Your task to perform on an android device: Open Chrome and go to settings Image 0: 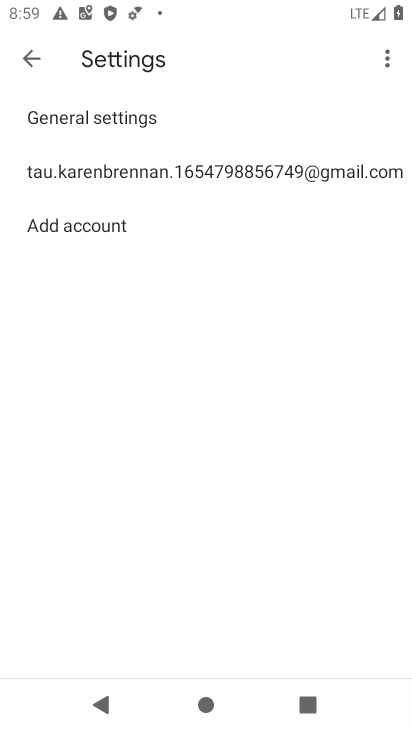
Step 0: press home button
Your task to perform on an android device: Open Chrome and go to settings Image 1: 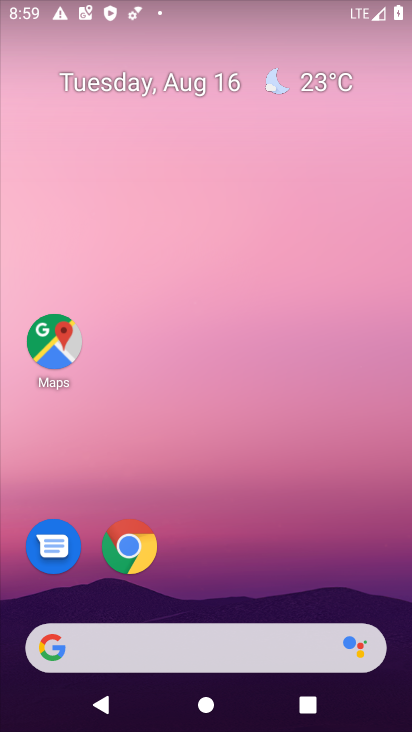
Step 1: click (130, 542)
Your task to perform on an android device: Open Chrome and go to settings Image 2: 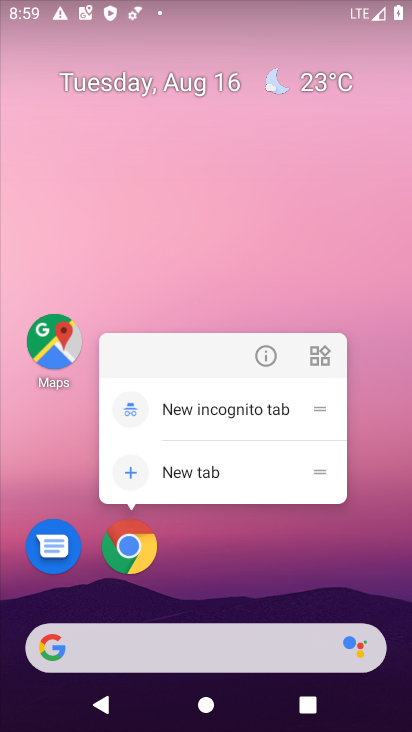
Step 2: click (130, 542)
Your task to perform on an android device: Open Chrome and go to settings Image 3: 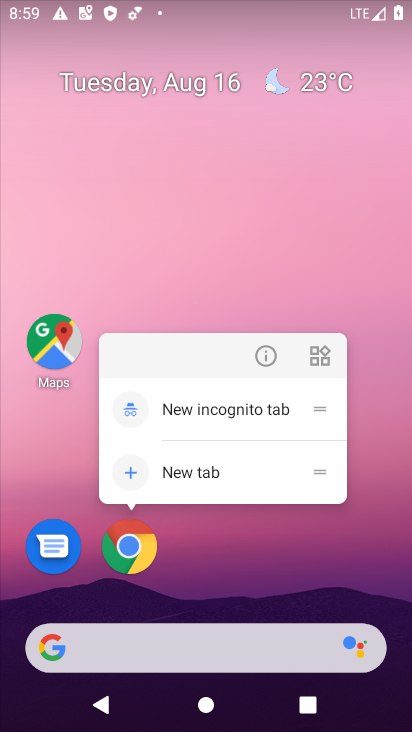
Step 3: click (130, 542)
Your task to perform on an android device: Open Chrome and go to settings Image 4: 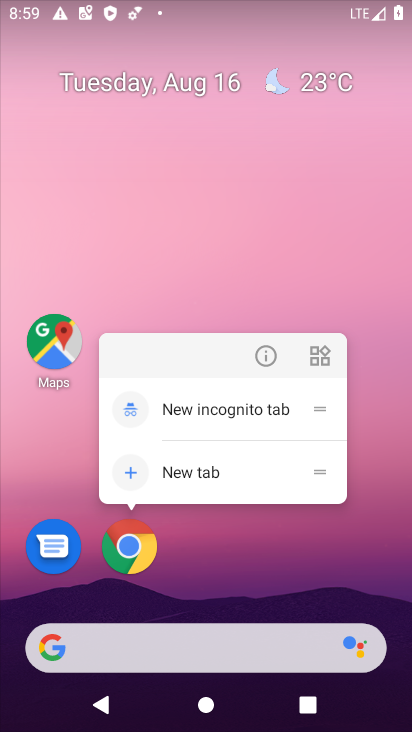
Step 4: click (130, 539)
Your task to perform on an android device: Open Chrome and go to settings Image 5: 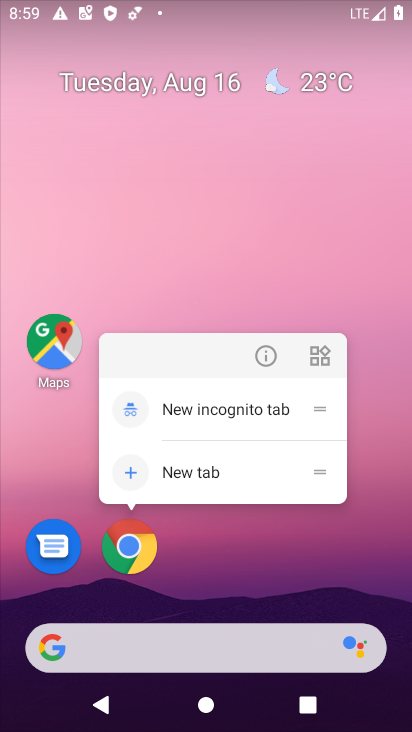
Step 5: click (126, 551)
Your task to perform on an android device: Open Chrome and go to settings Image 6: 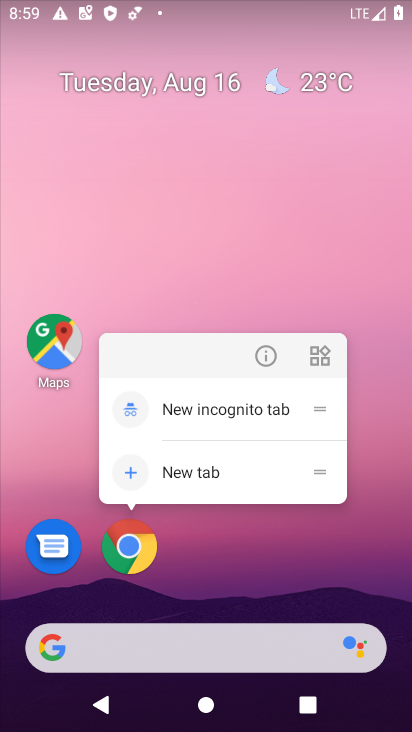
Step 6: click (138, 539)
Your task to perform on an android device: Open Chrome and go to settings Image 7: 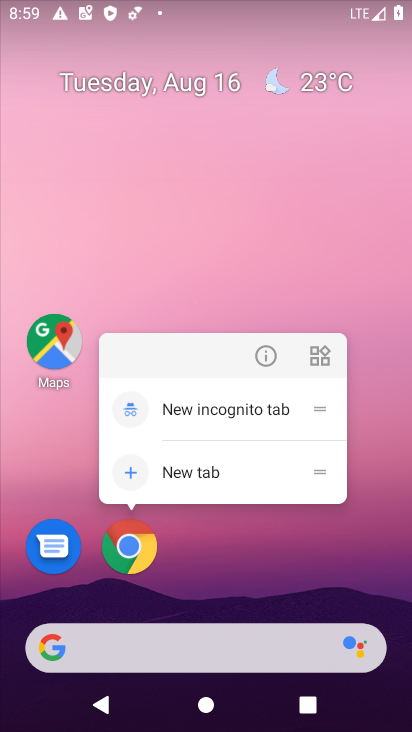
Step 7: click (133, 541)
Your task to perform on an android device: Open Chrome and go to settings Image 8: 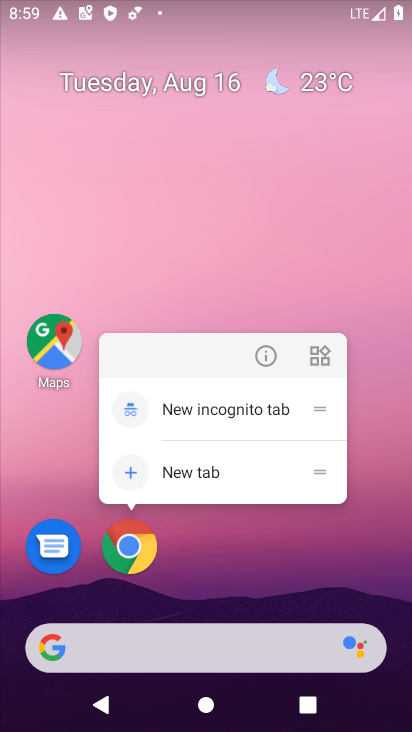
Step 8: click (137, 542)
Your task to perform on an android device: Open Chrome and go to settings Image 9: 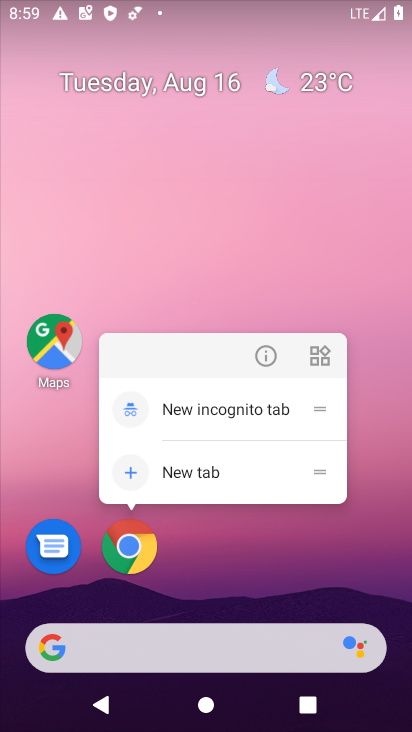
Step 9: click (209, 563)
Your task to perform on an android device: Open Chrome and go to settings Image 10: 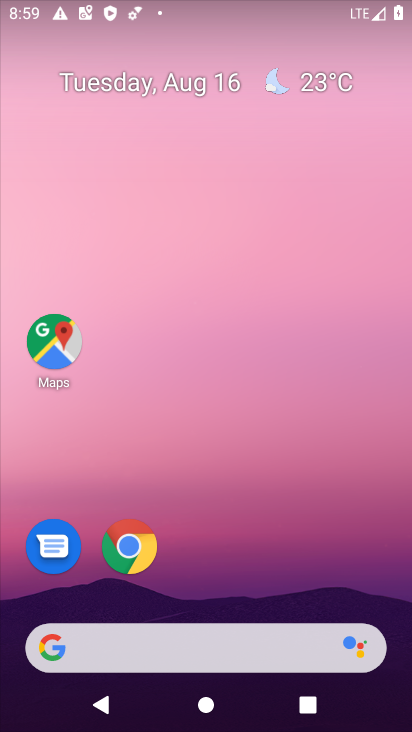
Step 10: drag from (233, 223) to (188, 10)
Your task to perform on an android device: Open Chrome and go to settings Image 11: 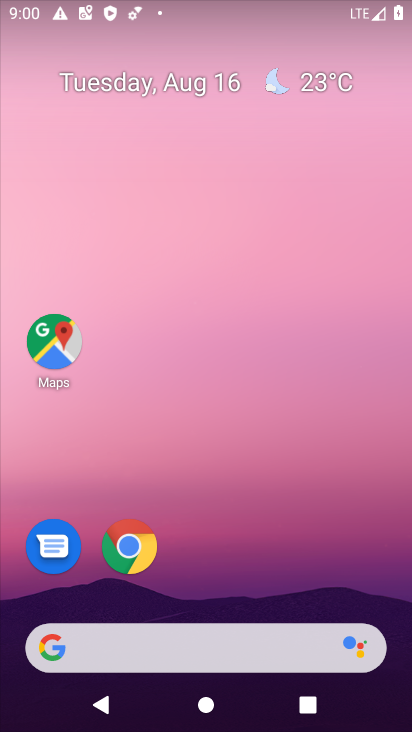
Step 11: drag from (230, 533) to (297, 0)
Your task to perform on an android device: Open Chrome and go to settings Image 12: 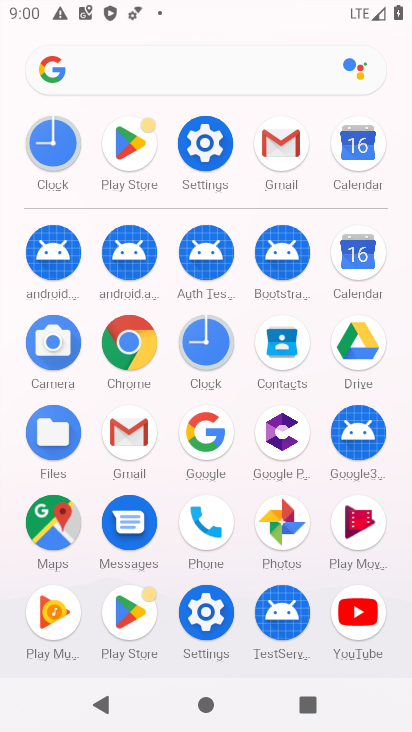
Step 12: click (133, 339)
Your task to perform on an android device: Open Chrome and go to settings Image 13: 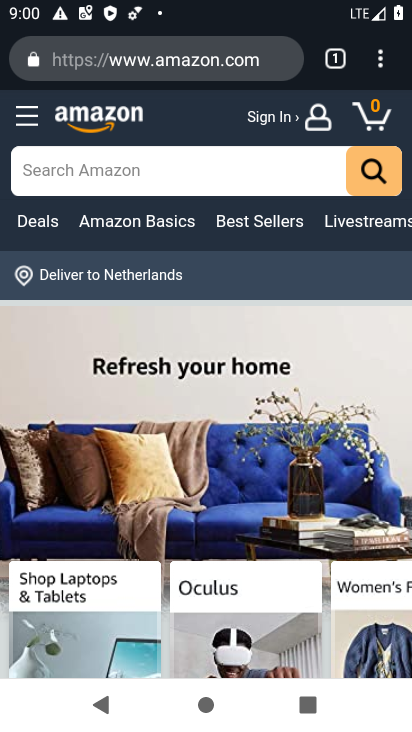
Step 13: click (378, 59)
Your task to perform on an android device: Open Chrome and go to settings Image 14: 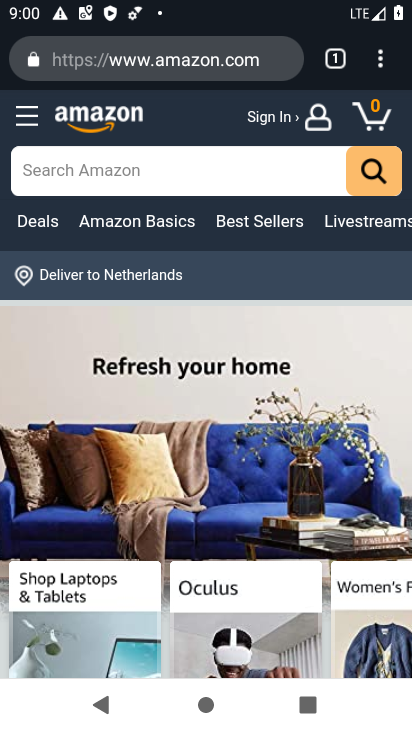
Step 14: click (378, 66)
Your task to perform on an android device: Open Chrome and go to settings Image 15: 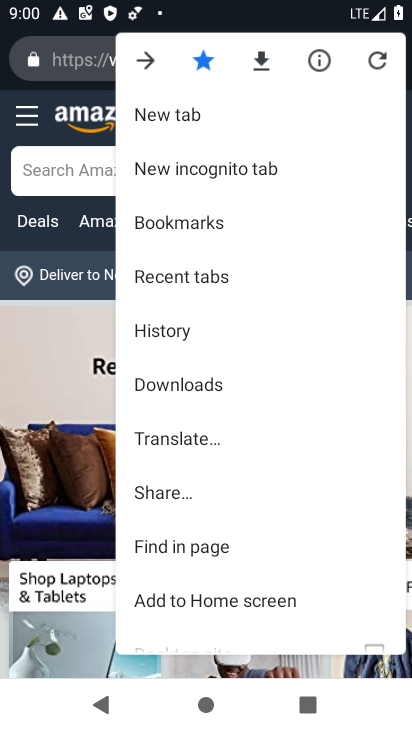
Step 15: drag from (261, 500) to (295, 86)
Your task to perform on an android device: Open Chrome and go to settings Image 16: 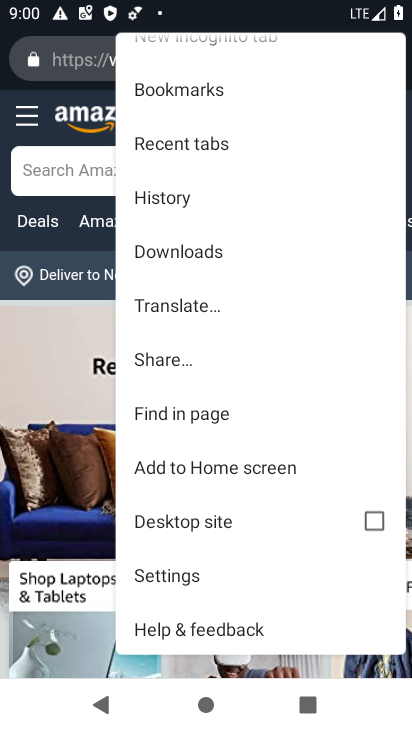
Step 16: click (188, 580)
Your task to perform on an android device: Open Chrome and go to settings Image 17: 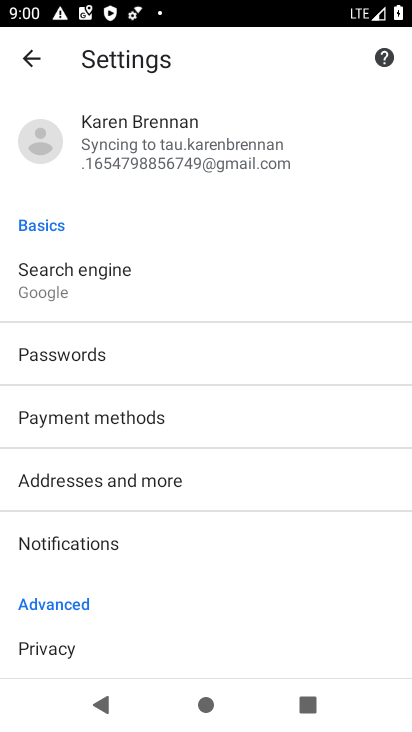
Step 17: task complete